Your task to perform on an android device: turn on the 12-hour format for clock Image 0: 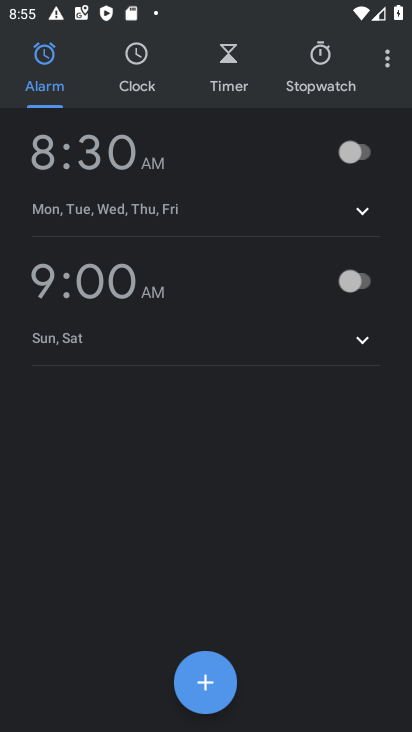
Step 0: click (387, 62)
Your task to perform on an android device: turn on the 12-hour format for clock Image 1: 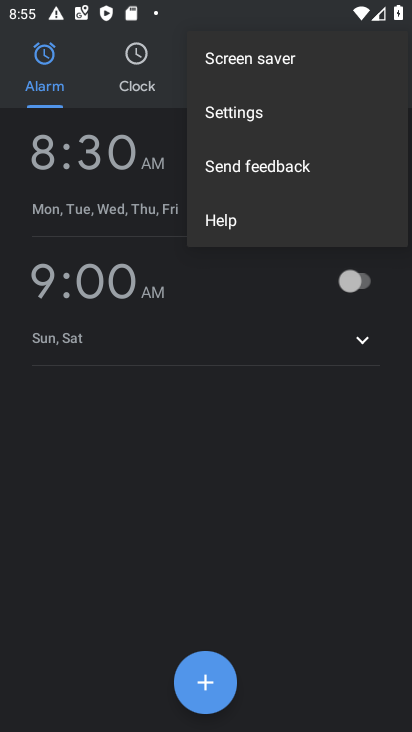
Step 1: click (253, 112)
Your task to perform on an android device: turn on the 12-hour format for clock Image 2: 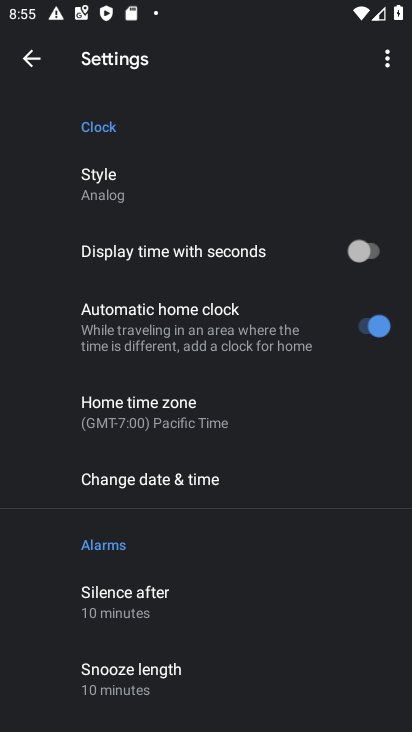
Step 2: click (118, 483)
Your task to perform on an android device: turn on the 12-hour format for clock Image 3: 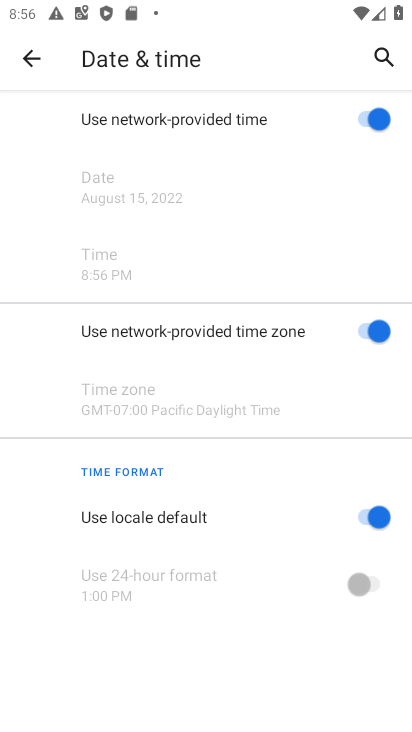
Step 3: task complete